Your task to perform on an android device: Is it going to rain this weekend? Image 0: 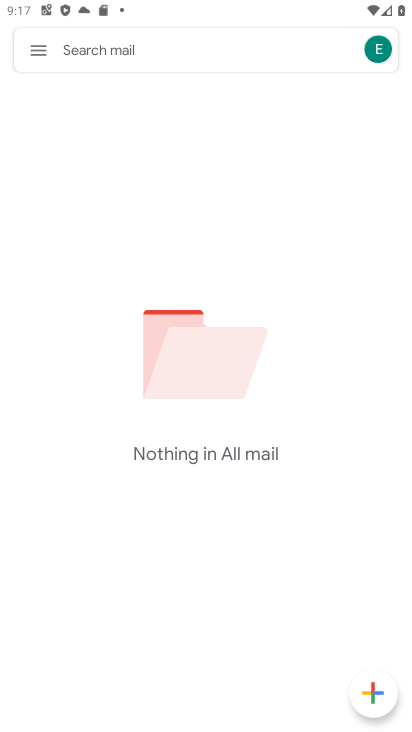
Step 0: press home button
Your task to perform on an android device: Is it going to rain this weekend? Image 1: 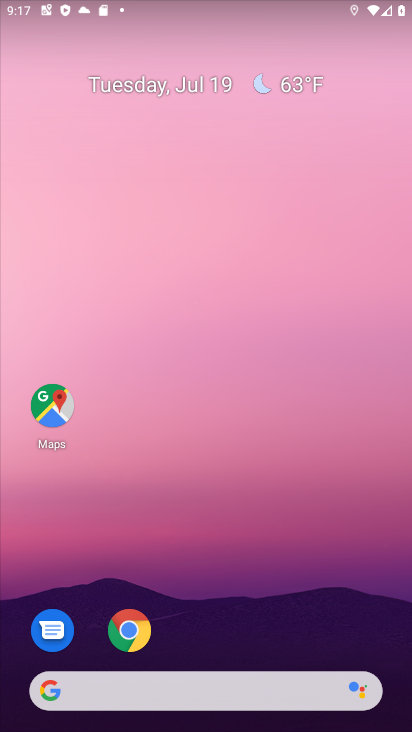
Step 1: drag from (197, 687) to (189, 228)
Your task to perform on an android device: Is it going to rain this weekend? Image 2: 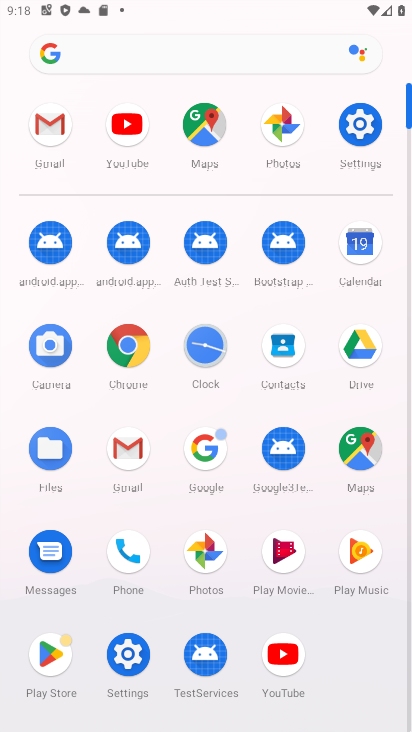
Step 2: click (203, 447)
Your task to perform on an android device: Is it going to rain this weekend? Image 3: 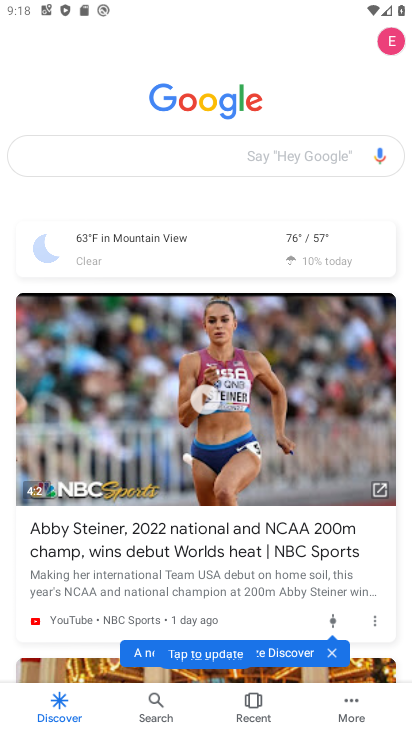
Step 3: click (247, 157)
Your task to perform on an android device: Is it going to rain this weekend? Image 4: 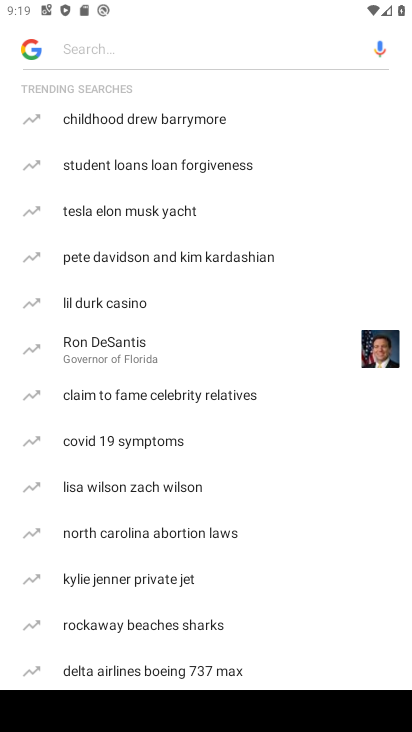
Step 4: type "Is it going to rain this weekend?"
Your task to perform on an android device: Is it going to rain this weekend? Image 5: 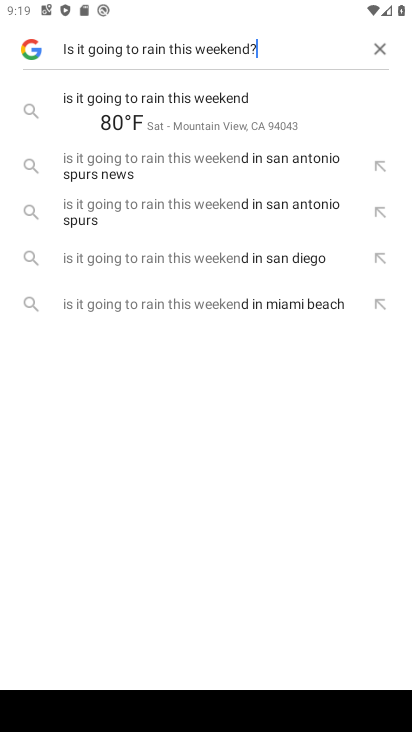
Step 5: type ""
Your task to perform on an android device: Is it going to rain this weekend? Image 6: 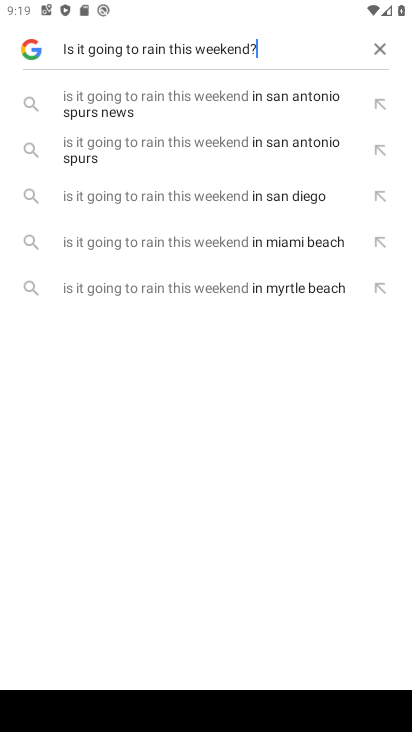
Step 6: click (156, 204)
Your task to perform on an android device: Is it going to rain this weekend? Image 7: 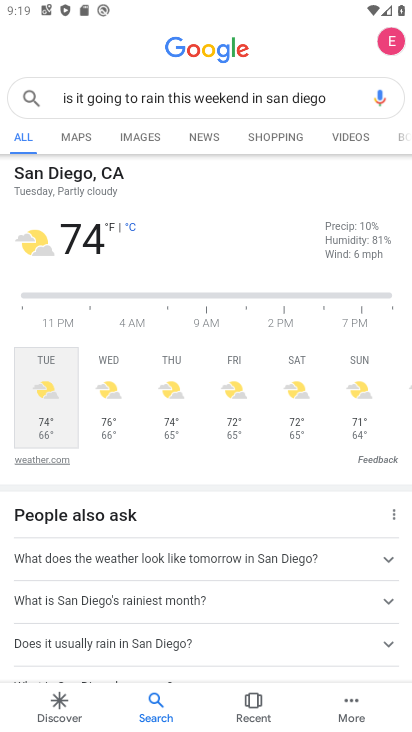
Step 7: task complete